Your task to perform on an android device: turn on the 24-hour format for clock Image 0: 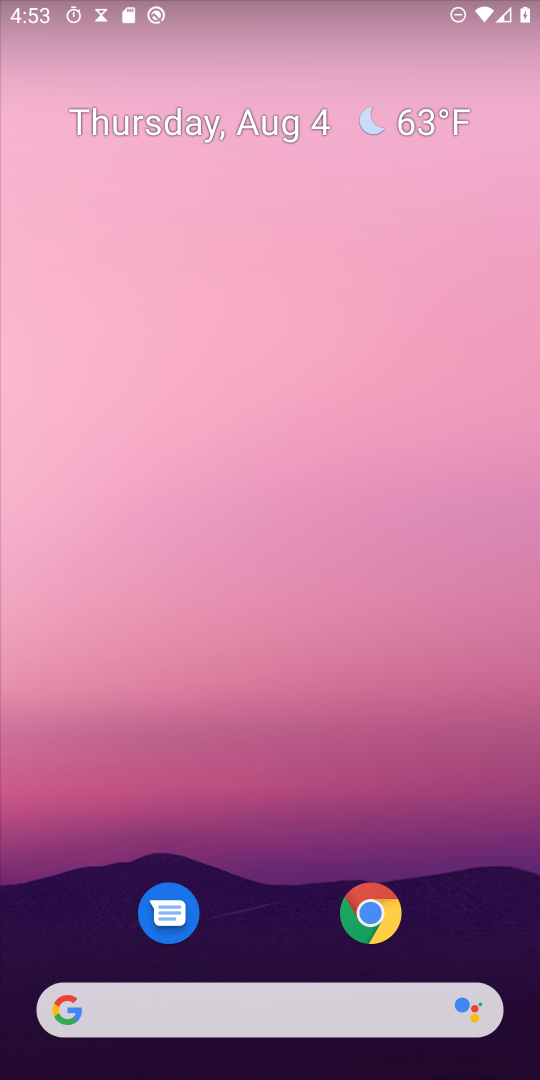
Step 0: drag from (412, 997) to (413, 85)
Your task to perform on an android device: turn on the 24-hour format for clock Image 1: 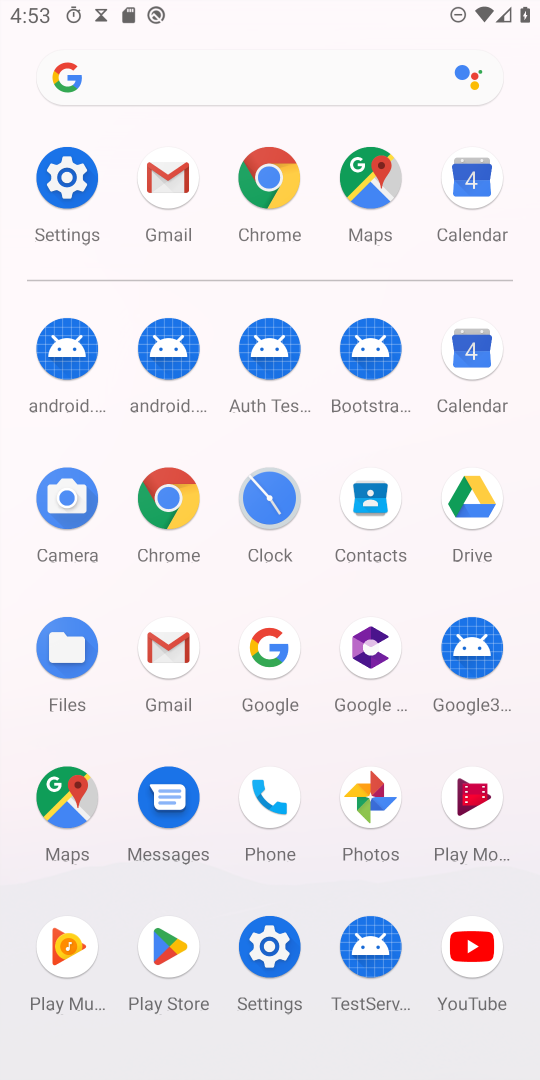
Step 1: click (271, 503)
Your task to perform on an android device: turn on the 24-hour format for clock Image 2: 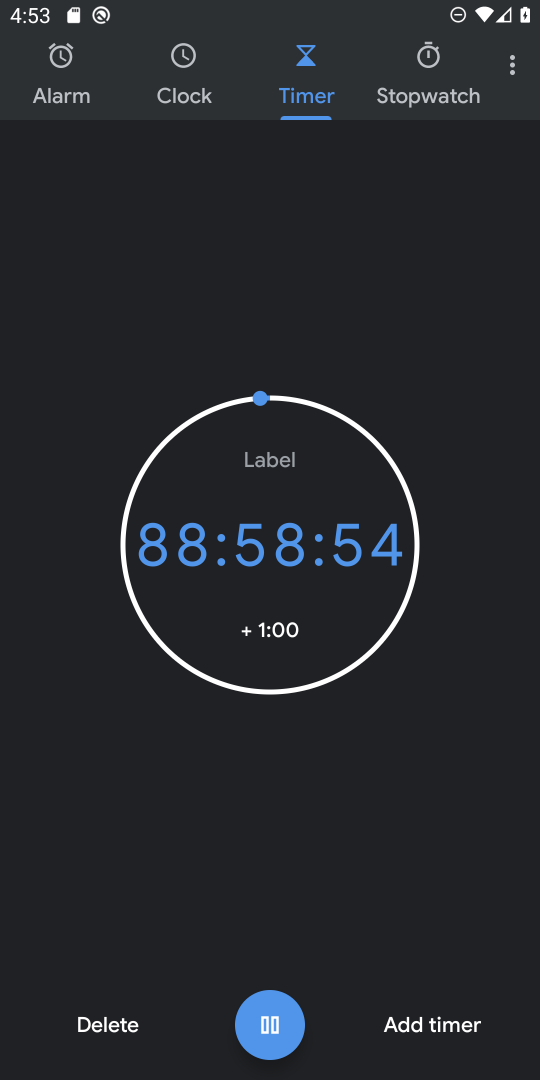
Step 2: click (513, 66)
Your task to perform on an android device: turn on the 24-hour format for clock Image 3: 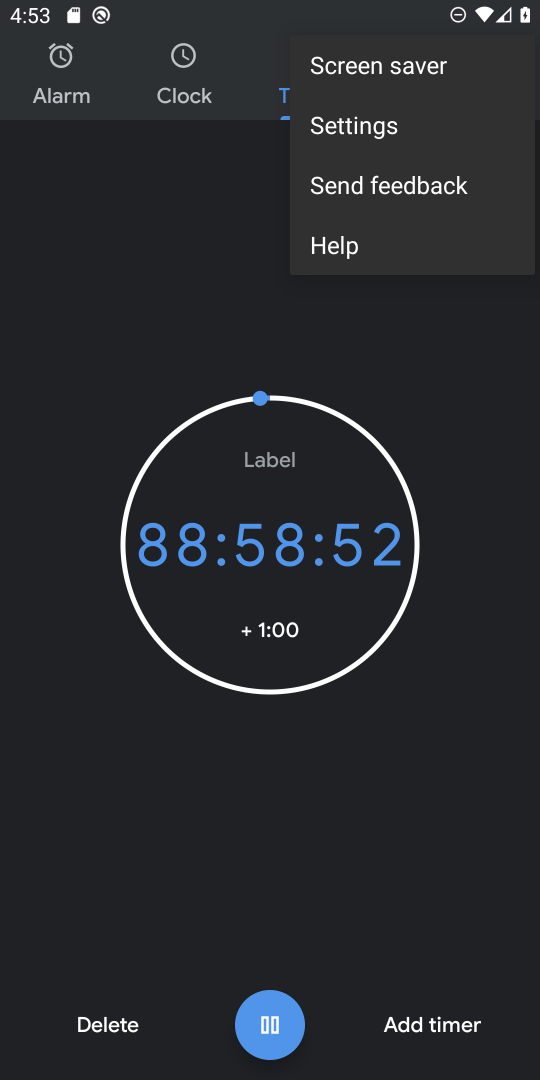
Step 3: click (393, 131)
Your task to perform on an android device: turn on the 24-hour format for clock Image 4: 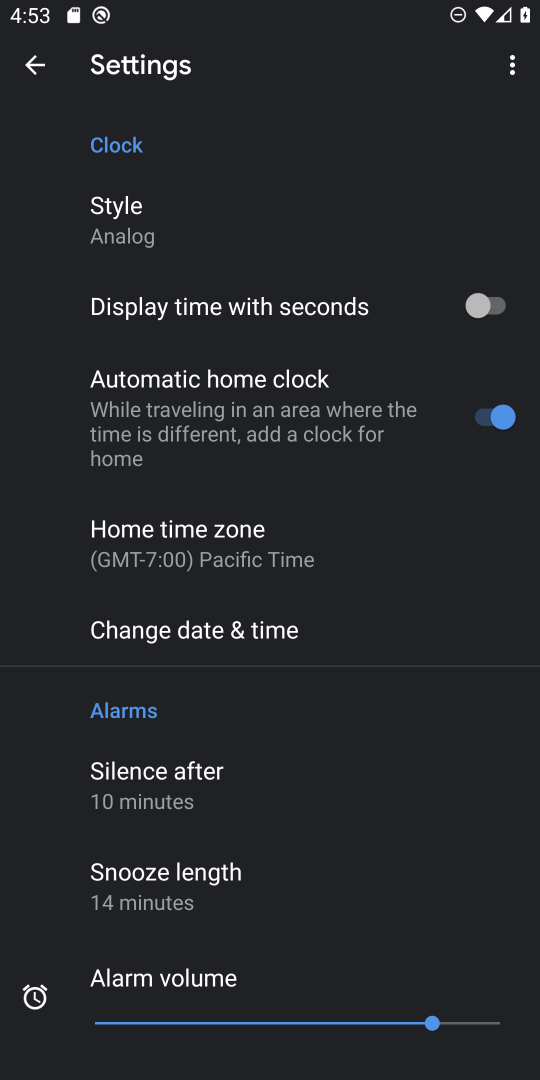
Step 4: click (288, 617)
Your task to perform on an android device: turn on the 24-hour format for clock Image 5: 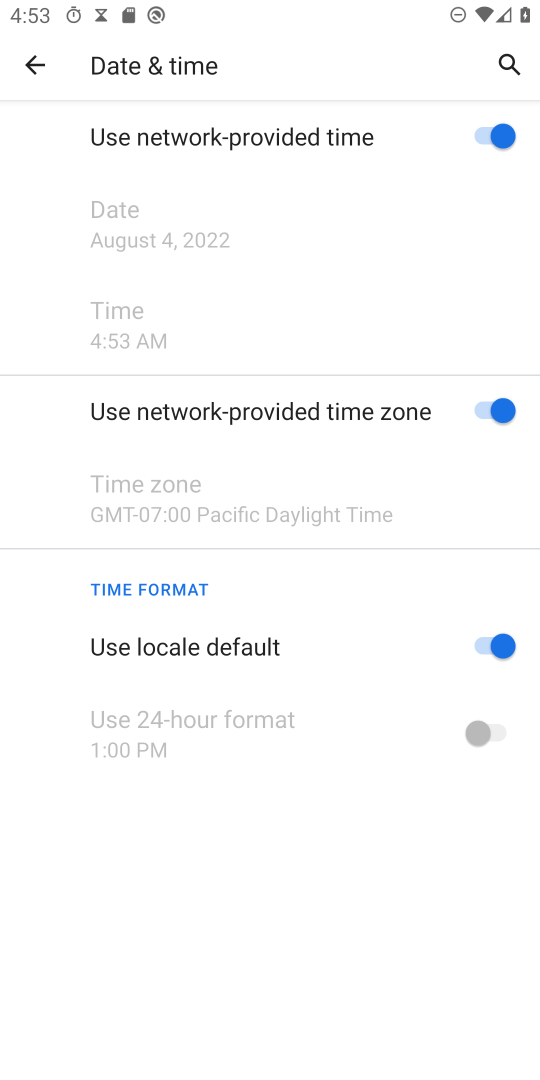
Step 5: click (480, 643)
Your task to perform on an android device: turn on the 24-hour format for clock Image 6: 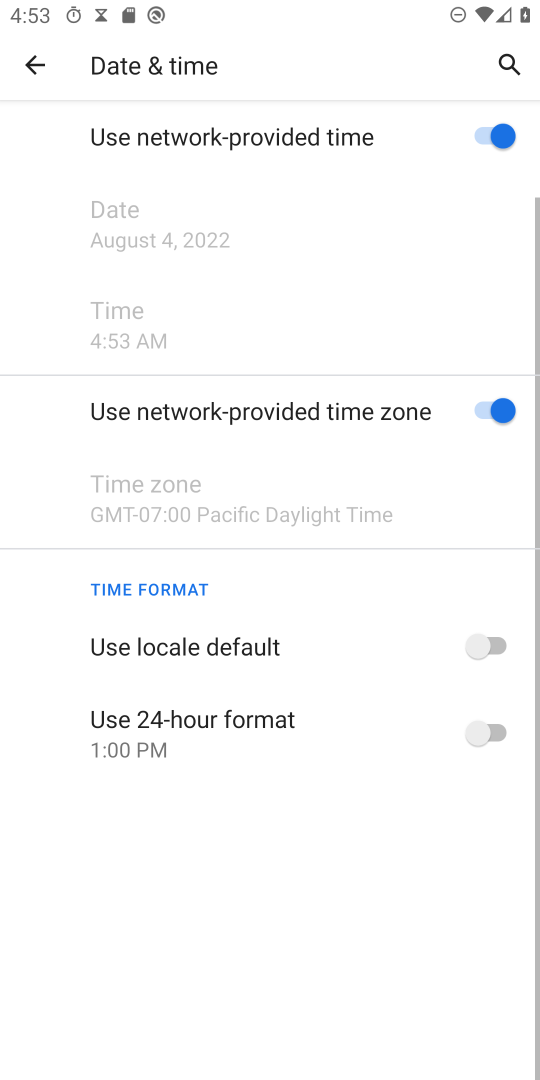
Step 6: click (497, 733)
Your task to perform on an android device: turn on the 24-hour format for clock Image 7: 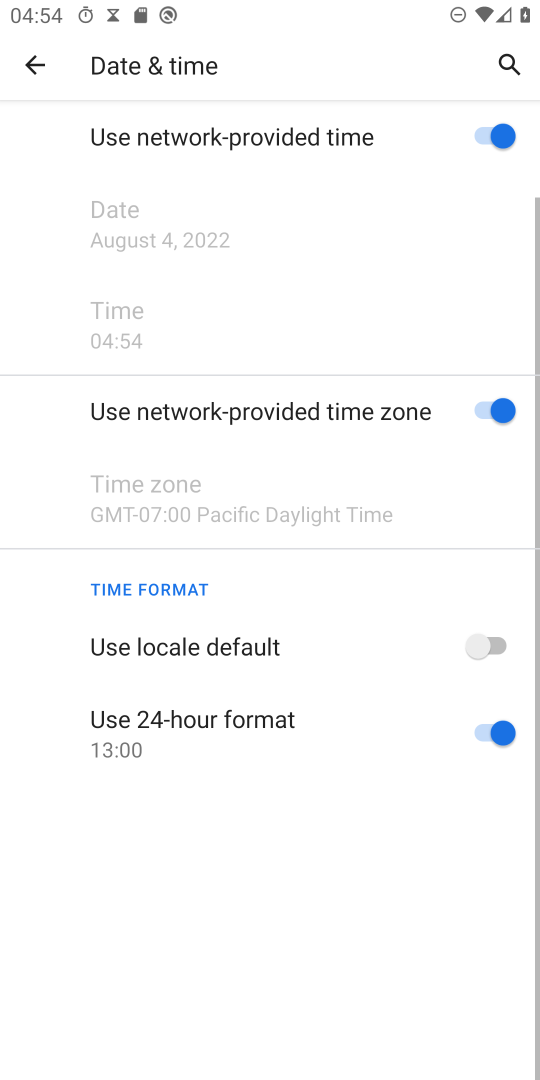
Step 7: task complete